Your task to perform on an android device: Open wifi settings Image 0: 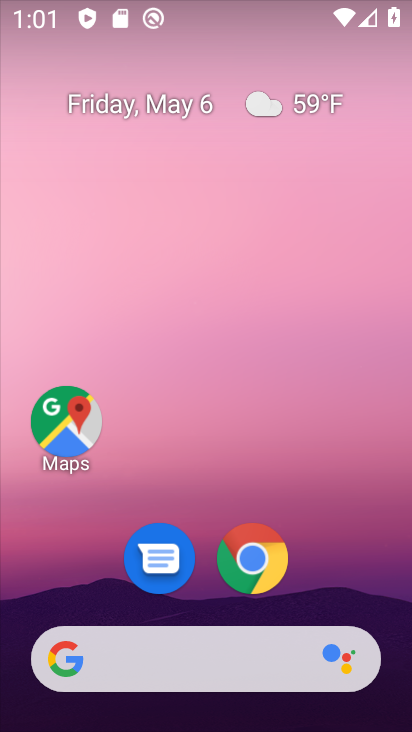
Step 0: drag from (211, 727) to (189, 368)
Your task to perform on an android device: Open wifi settings Image 1: 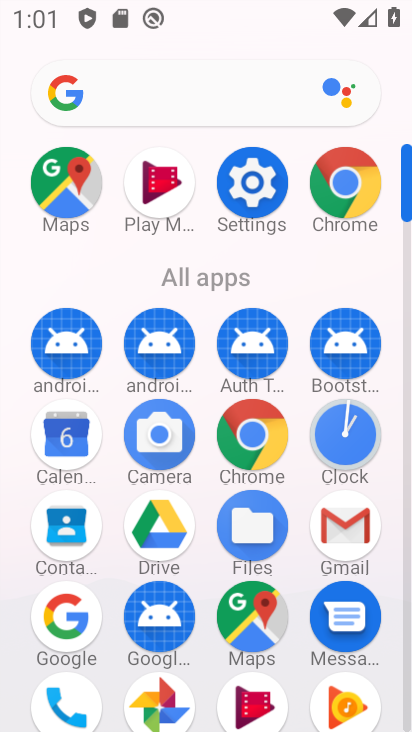
Step 1: click (241, 176)
Your task to perform on an android device: Open wifi settings Image 2: 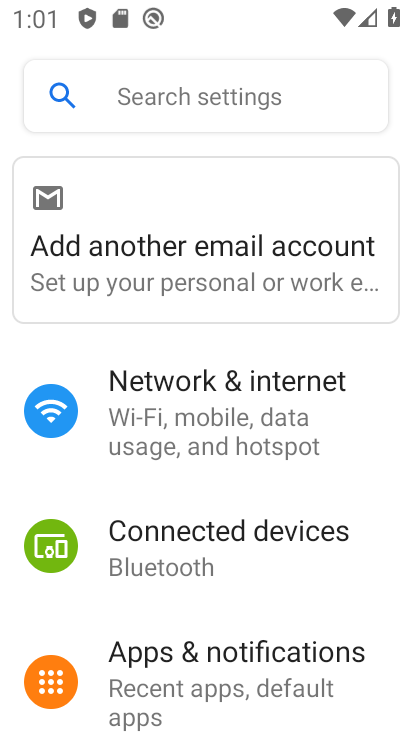
Step 2: click (200, 424)
Your task to perform on an android device: Open wifi settings Image 3: 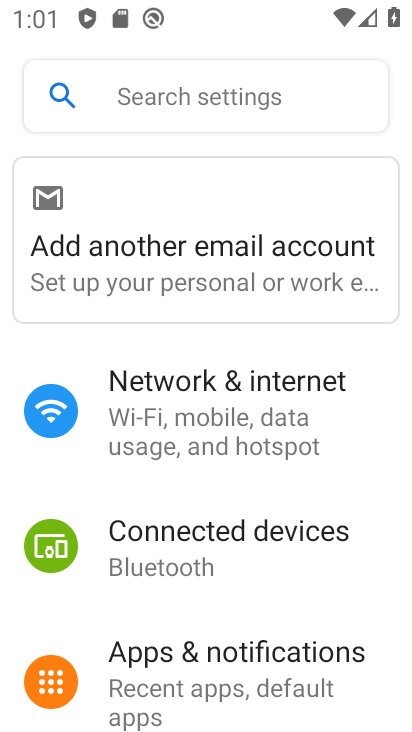
Step 3: click (185, 411)
Your task to perform on an android device: Open wifi settings Image 4: 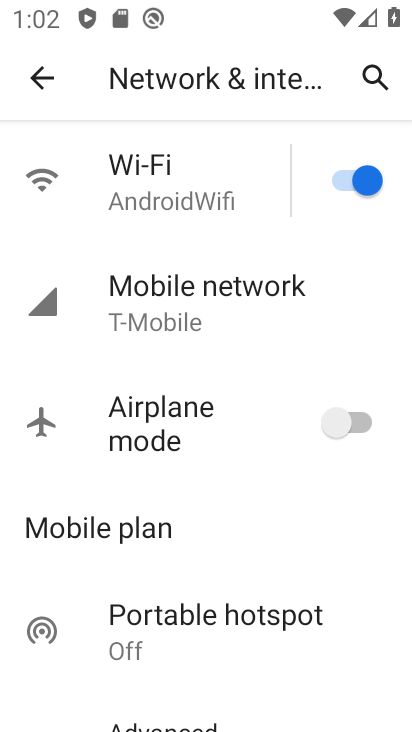
Step 4: click (139, 195)
Your task to perform on an android device: Open wifi settings Image 5: 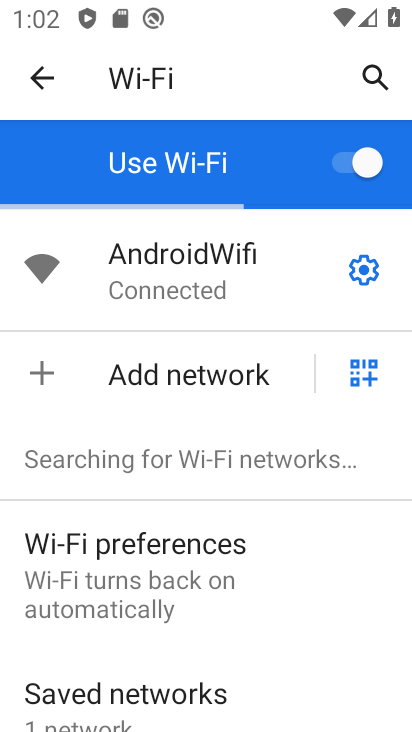
Step 5: task complete